Your task to perform on an android device: Find coffee shops on Maps Image 0: 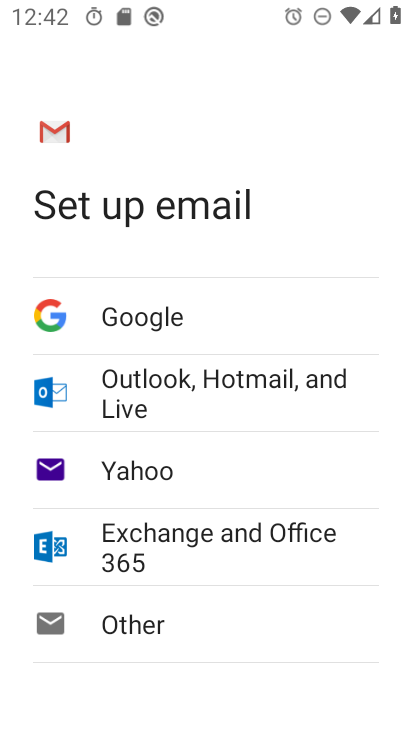
Step 0: press back button
Your task to perform on an android device: Find coffee shops on Maps Image 1: 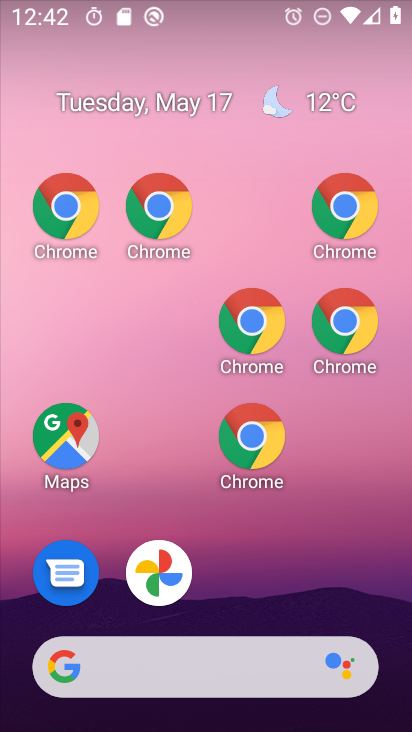
Step 1: drag from (373, 679) to (192, 136)
Your task to perform on an android device: Find coffee shops on Maps Image 2: 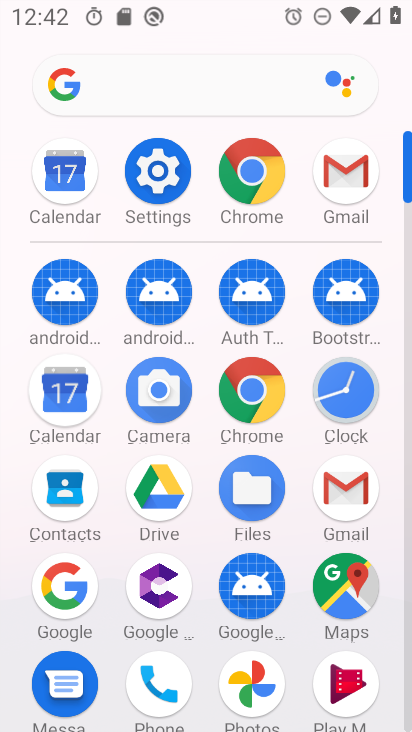
Step 2: click (344, 590)
Your task to perform on an android device: Find coffee shops on Maps Image 3: 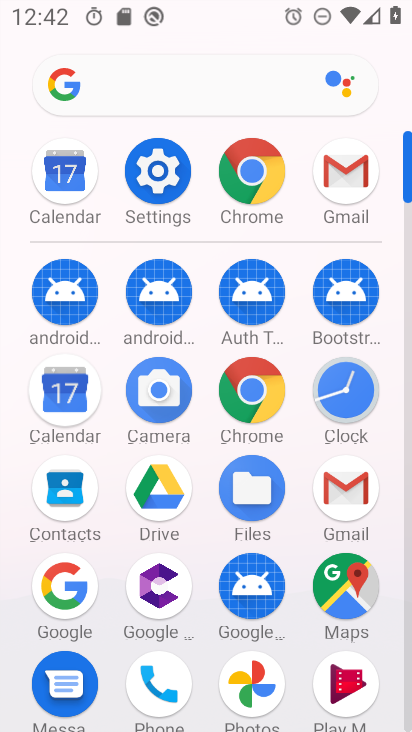
Step 3: click (344, 590)
Your task to perform on an android device: Find coffee shops on Maps Image 4: 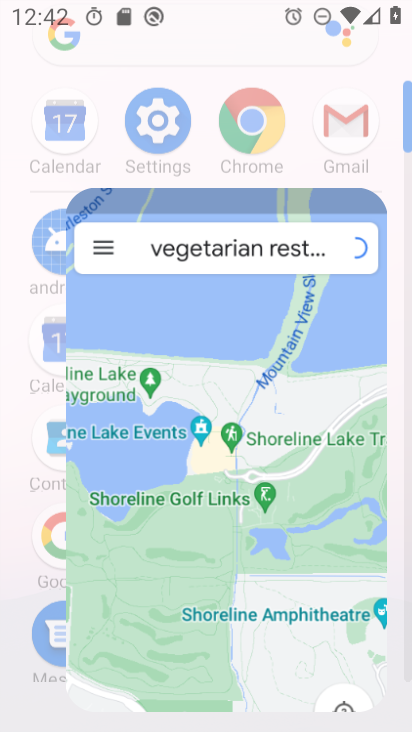
Step 4: click (344, 590)
Your task to perform on an android device: Find coffee shops on Maps Image 5: 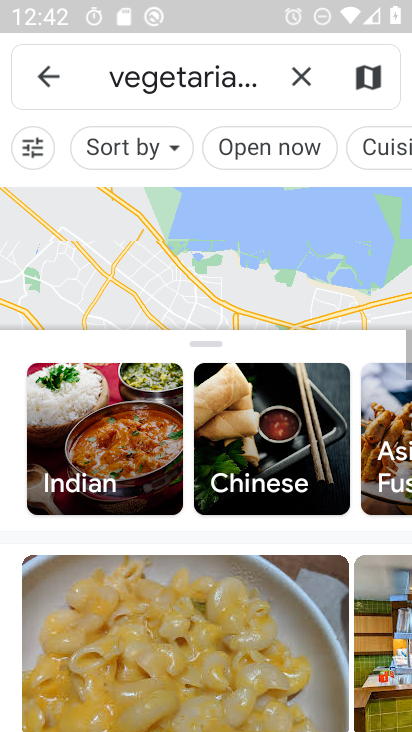
Step 5: click (295, 78)
Your task to perform on an android device: Find coffee shops on Maps Image 6: 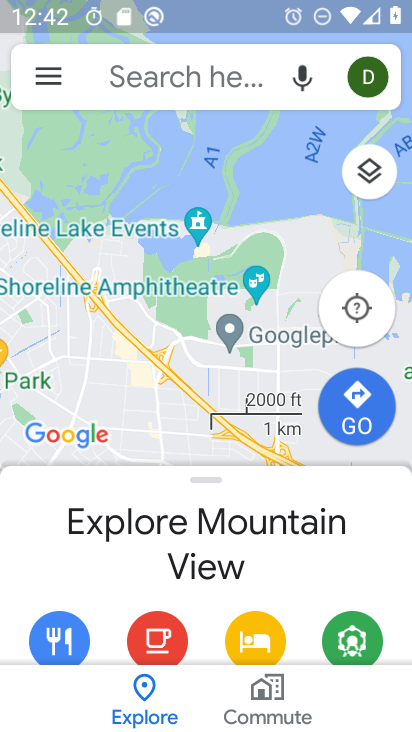
Step 6: click (109, 74)
Your task to perform on an android device: Find coffee shops on Maps Image 7: 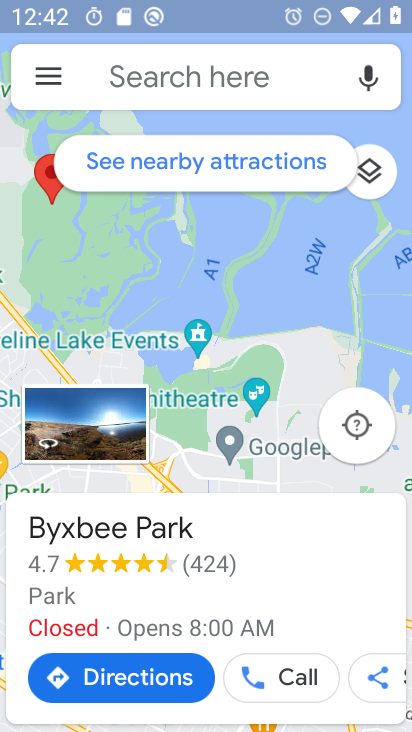
Step 7: click (121, 82)
Your task to perform on an android device: Find coffee shops on Maps Image 8: 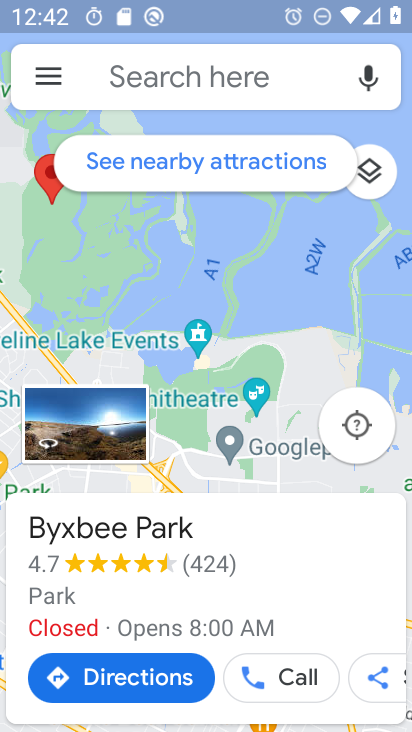
Step 8: click (121, 82)
Your task to perform on an android device: Find coffee shops on Maps Image 9: 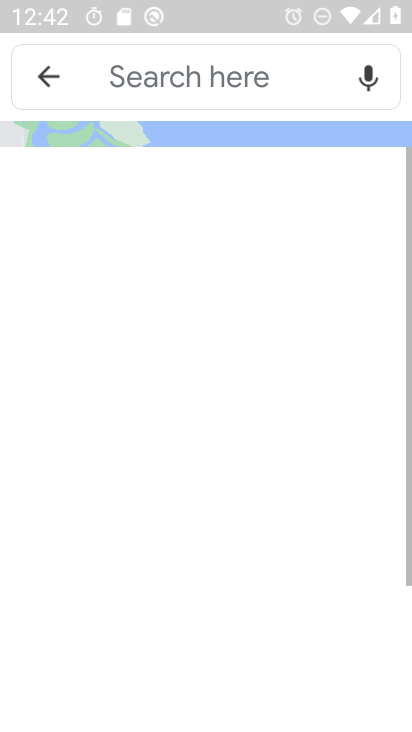
Step 9: click (121, 82)
Your task to perform on an android device: Find coffee shops on Maps Image 10: 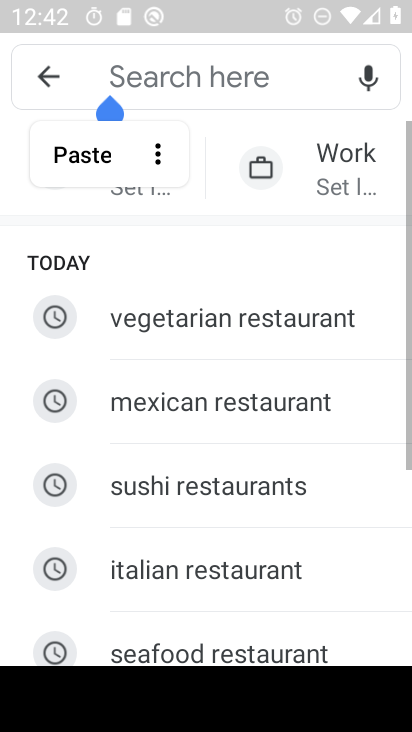
Step 10: click (129, 81)
Your task to perform on an android device: Find coffee shops on Maps Image 11: 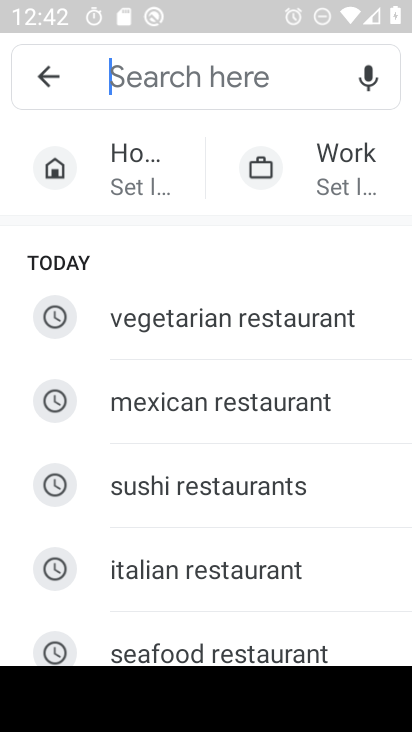
Step 11: type "coffee"
Your task to perform on an android device: Find coffee shops on Maps Image 12: 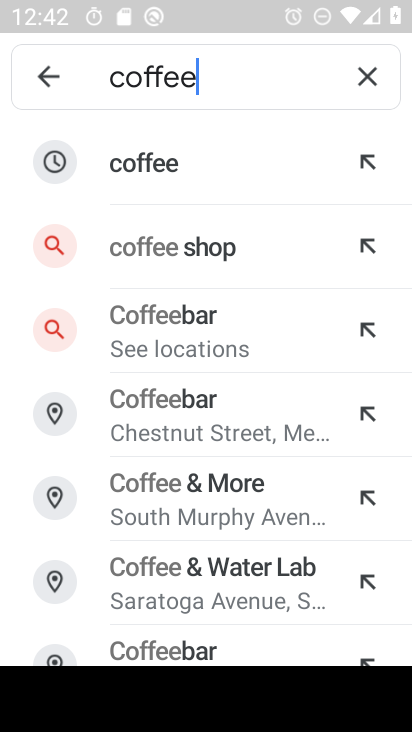
Step 12: click (148, 164)
Your task to perform on an android device: Find coffee shops on Maps Image 13: 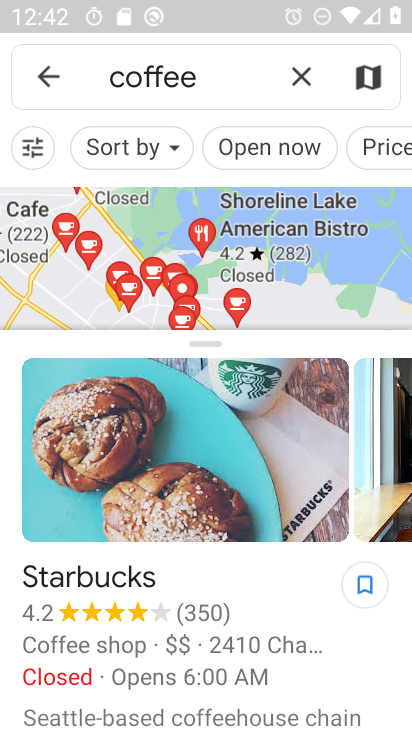
Step 13: task complete